Your task to perform on an android device: Check the weather Image 0: 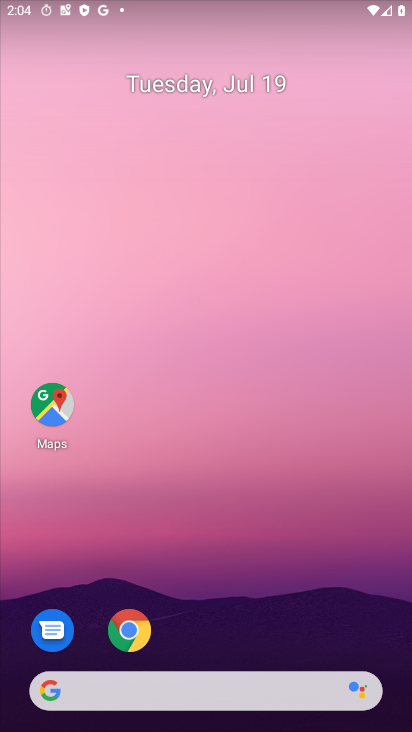
Step 0: click (219, 681)
Your task to perform on an android device: Check the weather Image 1: 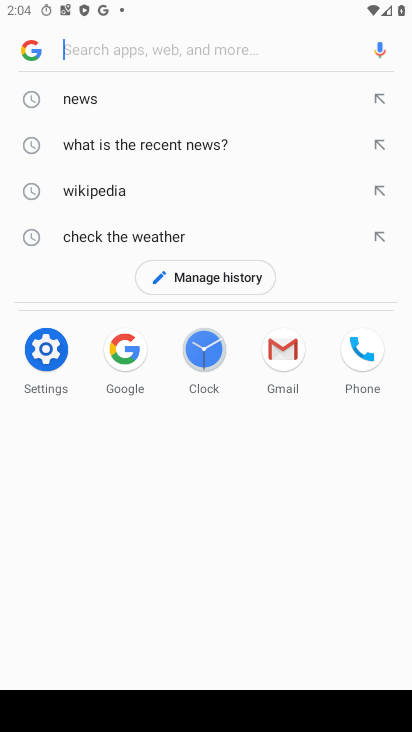
Step 1: type "weather"
Your task to perform on an android device: Check the weather Image 2: 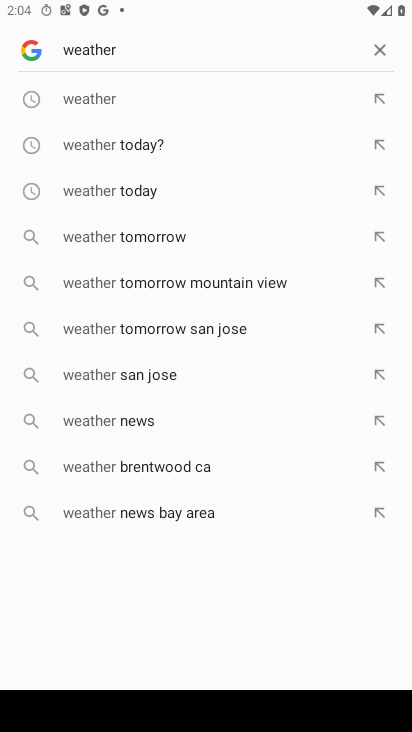
Step 2: click (75, 93)
Your task to perform on an android device: Check the weather Image 3: 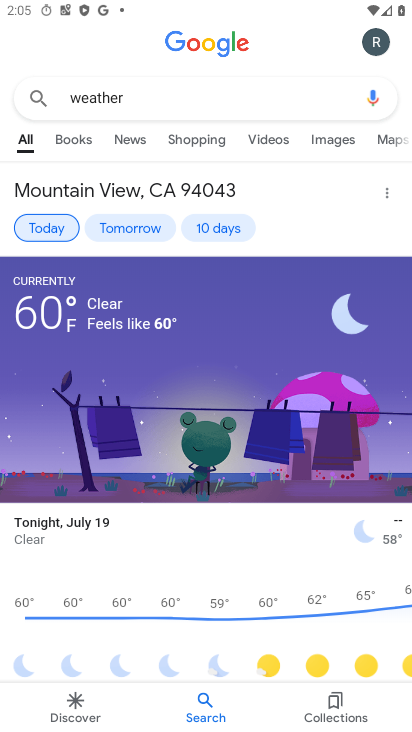
Step 3: task complete